Your task to perform on an android device: add a contact in the contacts app Image 0: 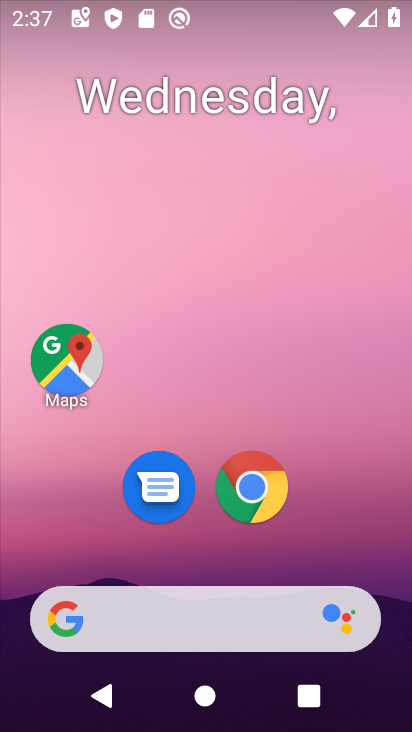
Step 0: drag from (350, 538) to (348, 226)
Your task to perform on an android device: add a contact in the contacts app Image 1: 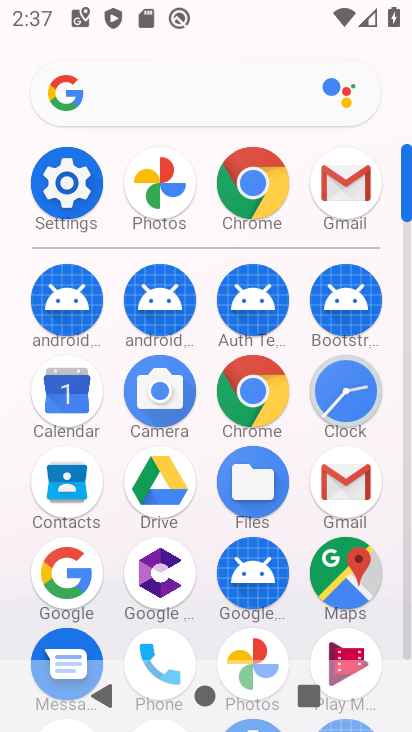
Step 1: click (86, 488)
Your task to perform on an android device: add a contact in the contacts app Image 2: 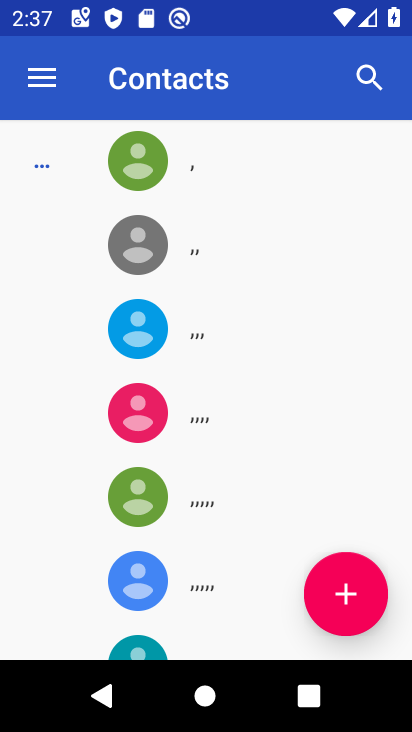
Step 2: click (322, 593)
Your task to perform on an android device: add a contact in the contacts app Image 3: 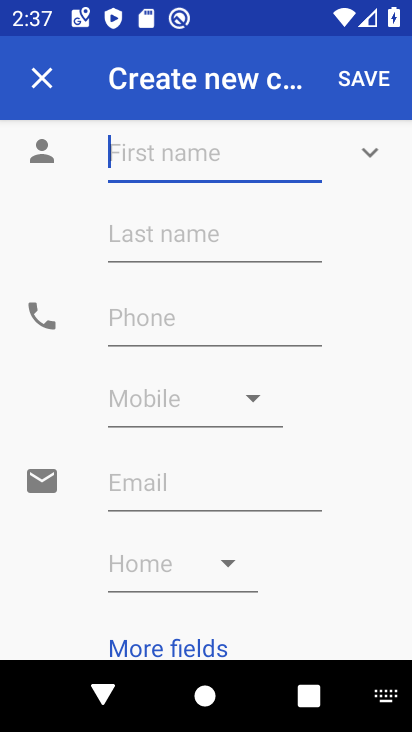
Step 3: click (252, 160)
Your task to perform on an android device: add a contact in the contacts app Image 4: 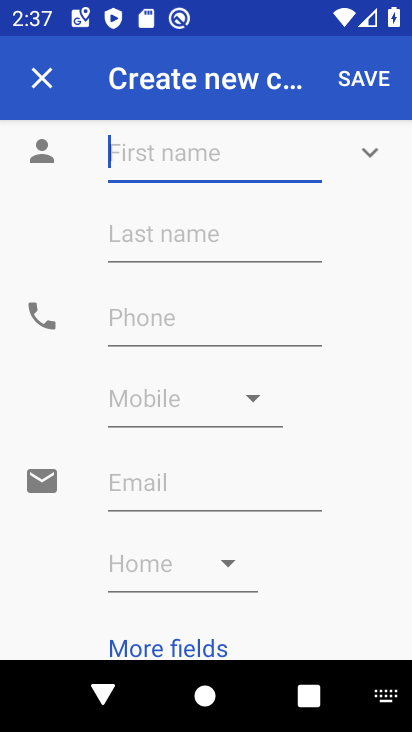
Step 4: type "opps"
Your task to perform on an android device: add a contact in the contacts app Image 5: 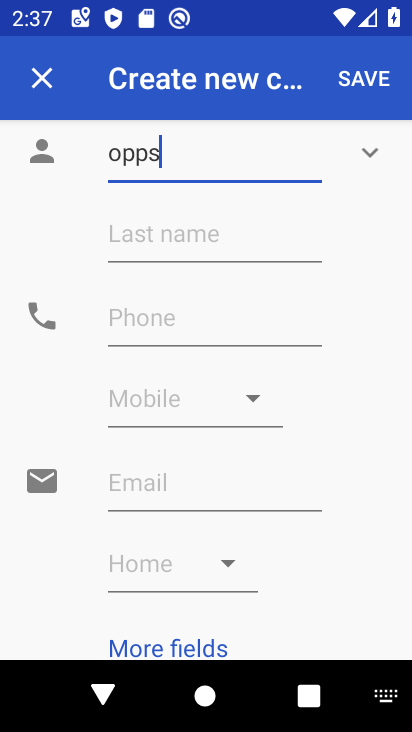
Step 5: click (244, 328)
Your task to perform on an android device: add a contact in the contacts app Image 6: 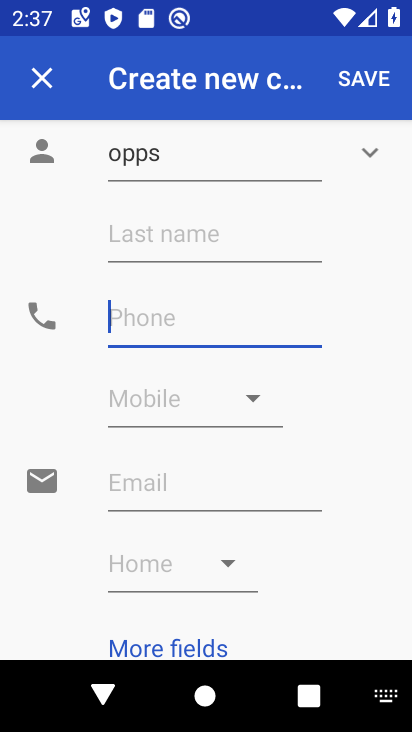
Step 6: type "1234567890"
Your task to perform on an android device: add a contact in the contacts app Image 7: 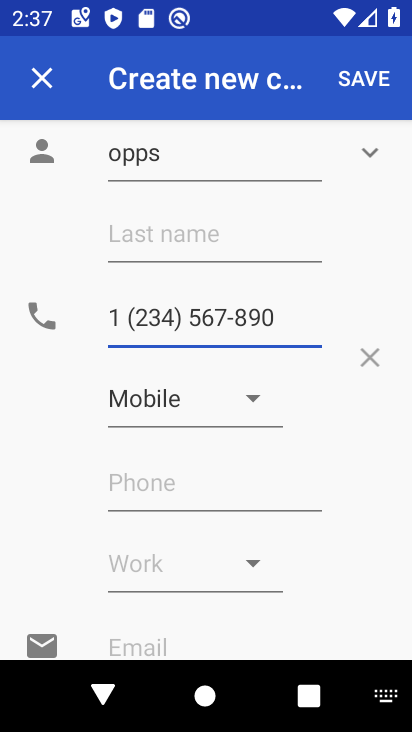
Step 7: click (371, 89)
Your task to perform on an android device: add a contact in the contacts app Image 8: 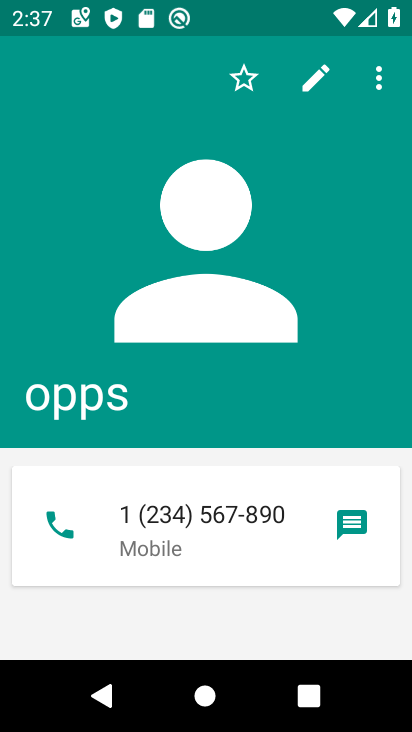
Step 8: task complete